Your task to perform on an android device: Look up the best rated hair dryer on Walmart. Image 0: 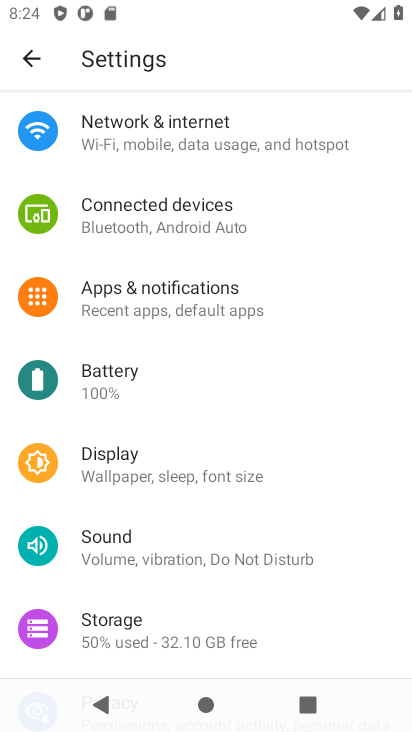
Step 0: press home button
Your task to perform on an android device: Look up the best rated hair dryer on Walmart. Image 1: 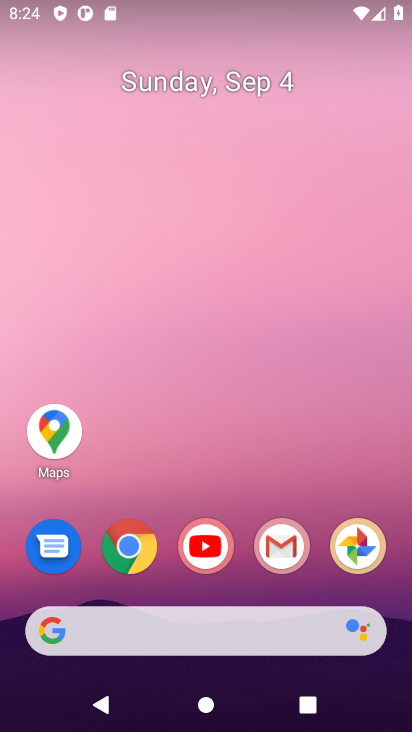
Step 1: click (123, 549)
Your task to perform on an android device: Look up the best rated hair dryer on Walmart. Image 2: 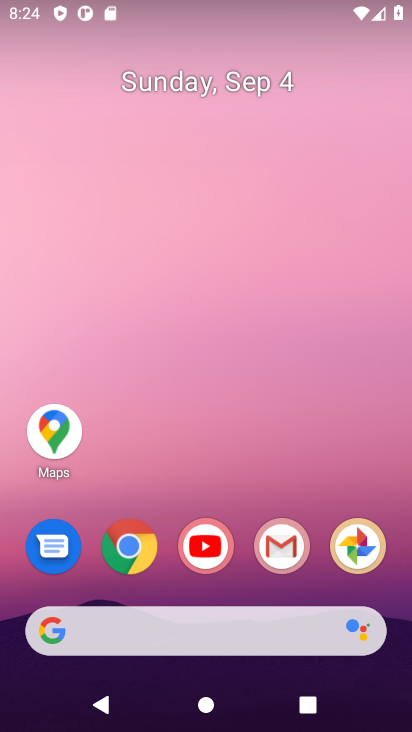
Step 2: click (123, 546)
Your task to perform on an android device: Look up the best rated hair dryer on Walmart. Image 3: 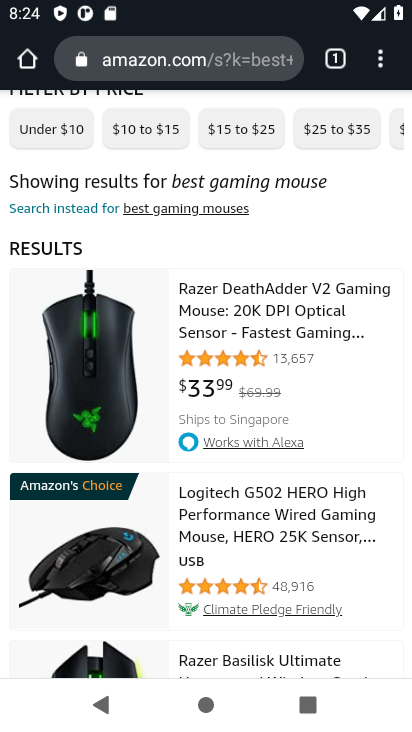
Step 3: click (234, 69)
Your task to perform on an android device: Look up the best rated hair dryer on Walmart. Image 4: 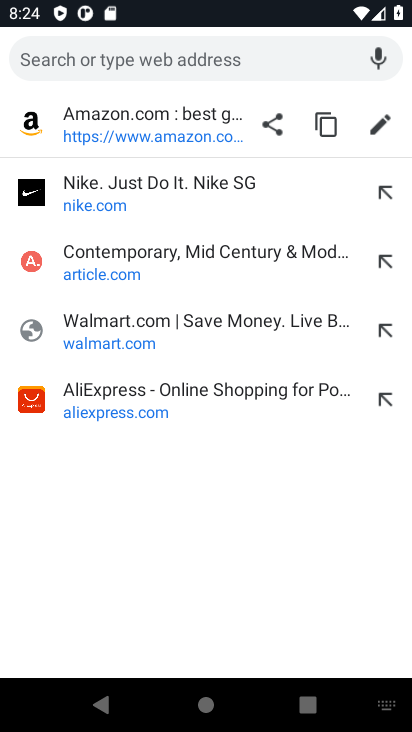
Step 4: type "Walmart"
Your task to perform on an android device: Look up the best rated hair dryer on Walmart. Image 5: 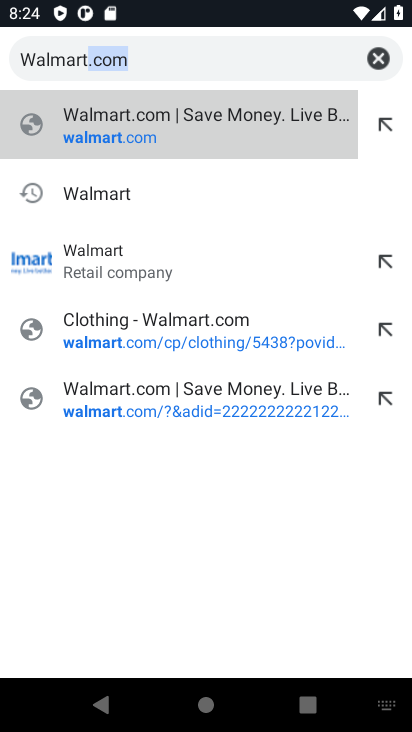
Step 5: click (99, 143)
Your task to perform on an android device: Look up the best rated hair dryer on Walmart. Image 6: 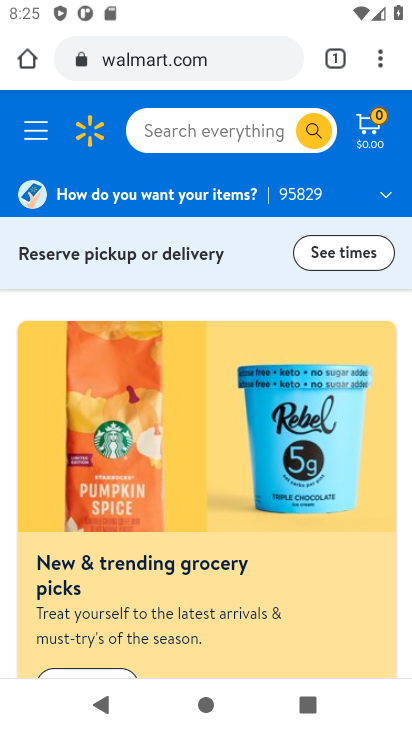
Step 6: click (176, 134)
Your task to perform on an android device: Look up the best rated hair dryer on Walmart. Image 7: 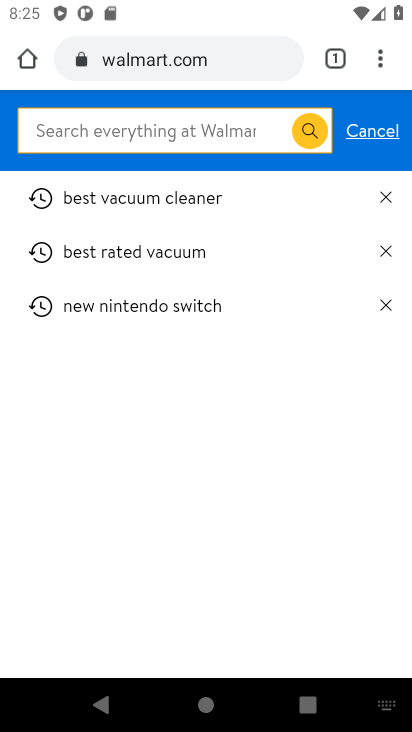
Step 7: type "best rated hair dryer"
Your task to perform on an android device: Look up the best rated hair dryer on Walmart. Image 8: 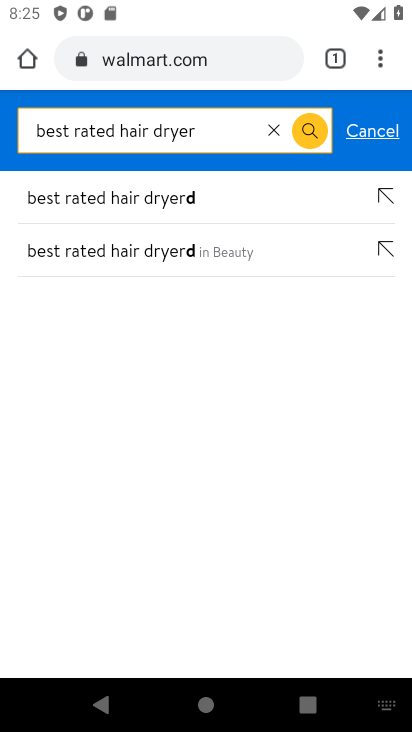
Step 8: click (304, 132)
Your task to perform on an android device: Look up the best rated hair dryer on Walmart. Image 9: 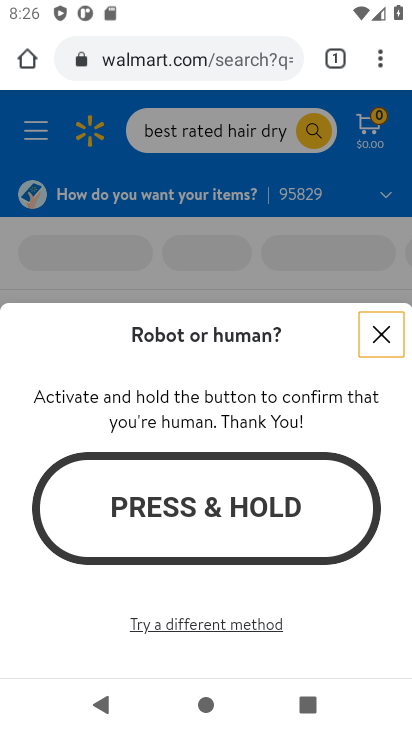
Step 9: click (217, 518)
Your task to perform on an android device: Look up the best rated hair dryer on Walmart. Image 10: 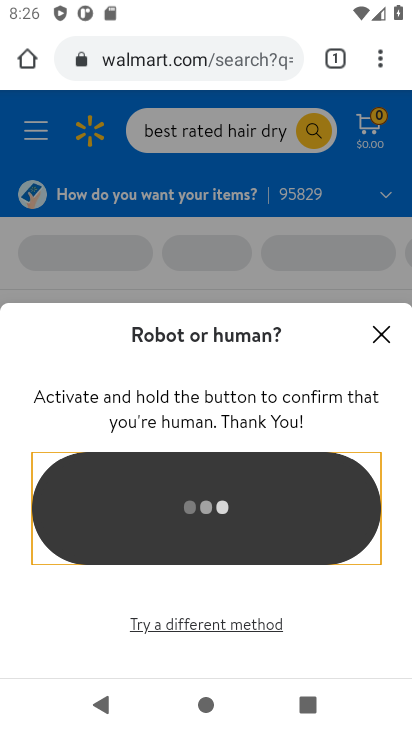
Step 10: click (217, 629)
Your task to perform on an android device: Look up the best rated hair dryer on Walmart. Image 11: 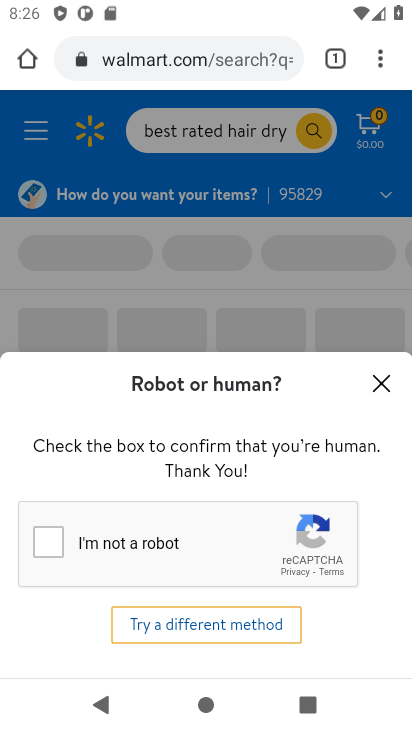
Step 11: click (53, 534)
Your task to perform on an android device: Look up the best rated hair dryer on Walmart. Image 12: 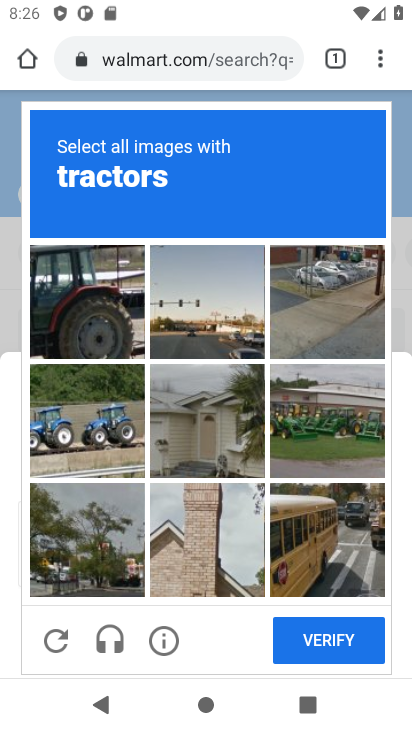
Step 12: drag from (191, 581) to (188, 447)
Your task to perform on an android device: Look up the best rated hair dryer on Walmart. Image 13: 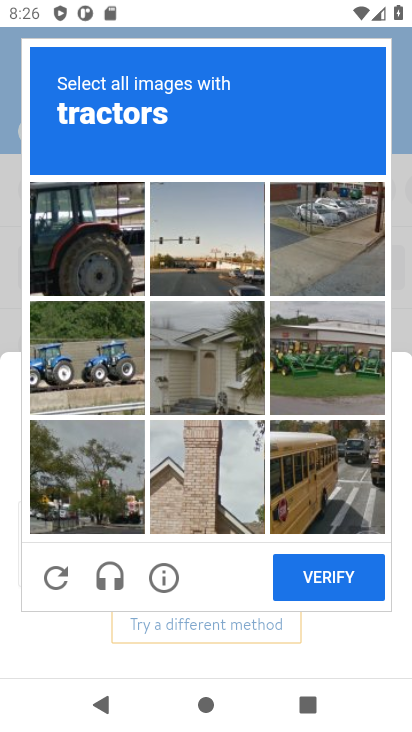
Step 13: click (70, 255)
Your task to perform on an android device: Look up the best rated hair dryer on Walmart. Image 14: 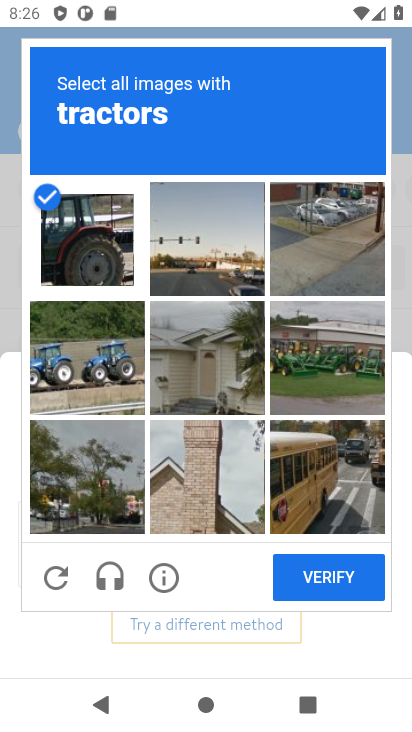
Step 14: click (91, 370)
Your task to perform on an android device: Look up the best rated hair dryer on Walmart. Image 15: 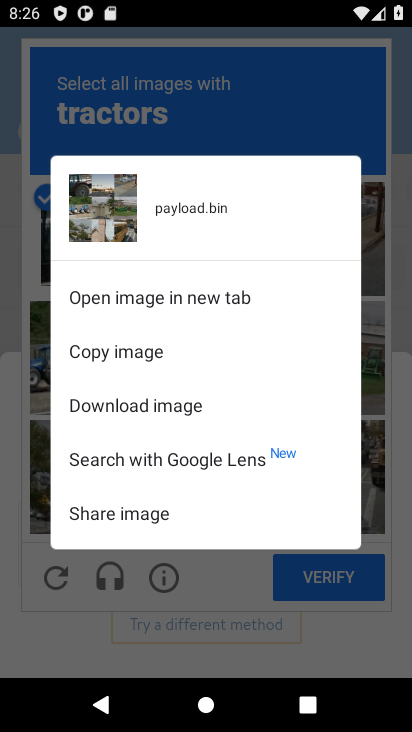
Step 15: click (392, 290)
Your task to perform on an android device: Look up the best rated hair dryer on Walmart. Image 16: 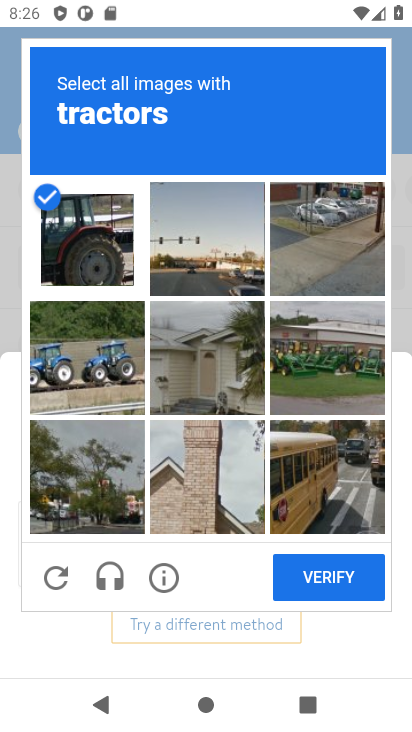
Step 16: click (102, 378)
Your task to perform on an android device: Look up the best rated hair dryer on Walmart. Image 17: 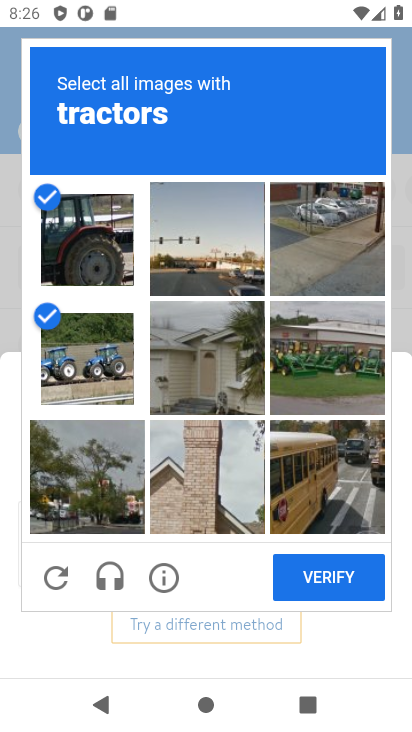
Step 17: click (69, 252)
Your task to perform on an android device: Look up the best rated hair dryer on Walmart. Image 18: 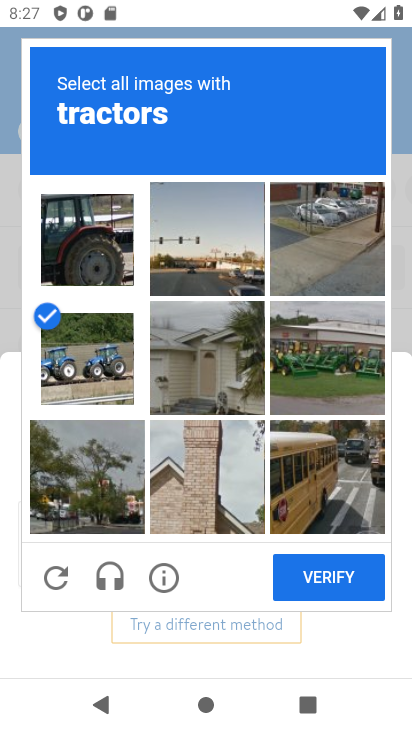
Step 18: click (69, 260)
Your task to perform on an android device: Look up the best rated hair dryer on Walmart. Image 19: 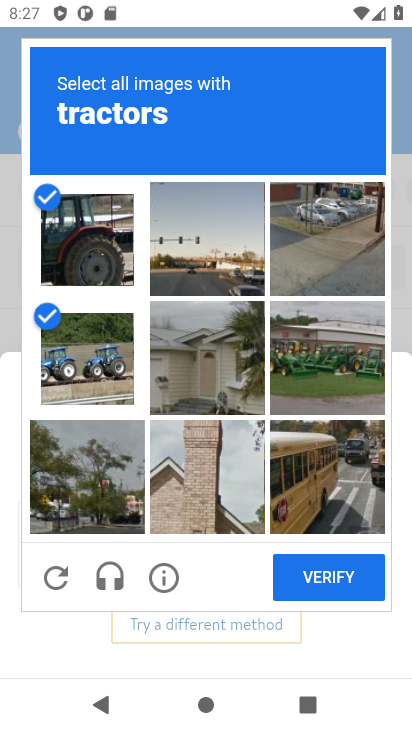
Step 19: click (335, 583)
Your task to perform on an android device: Look up the best rated hair dryer on Walmart. Image 20: 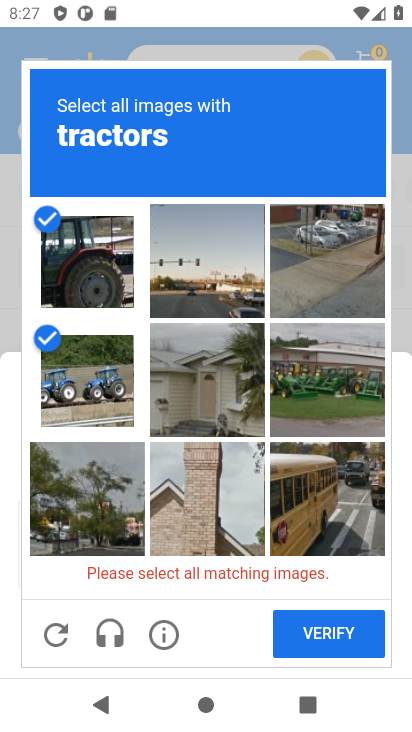
Step 20: click (348, 359)
Your task to perform on an android device: Look up the best rated hair dryer on Walmart. Image 21: 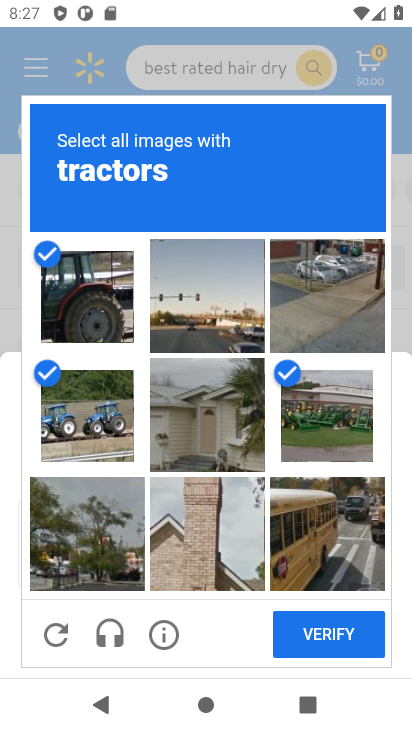
Step 21: click (319, 638)
Your task to perform on an android device: Look up the best rated hair dryer on Walmart. Image 22: 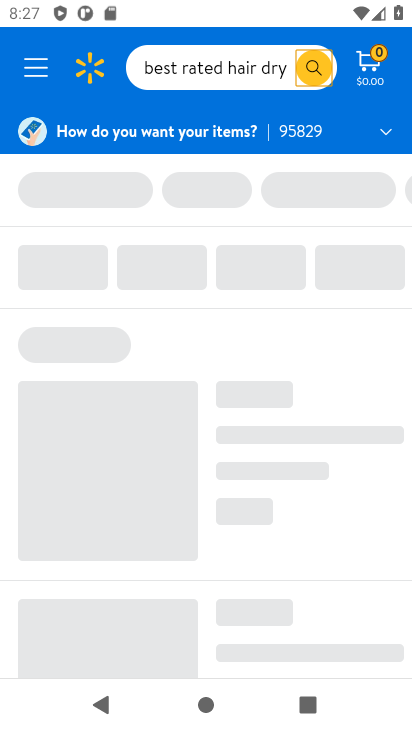
Step 22: task complete